Your task to perform on an android device: Open calendar and show me the third week of next month Image 0: 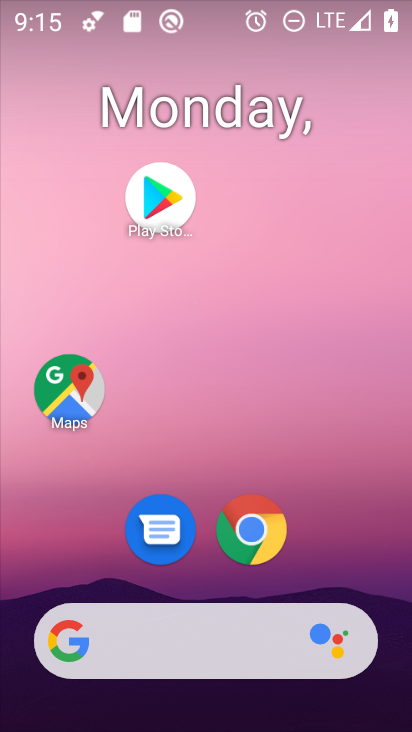
Step 0: drag from (321, 530) to (179, 15)
Your task to perform on an android device: Open calendar and show me the third week of next month Image 1: 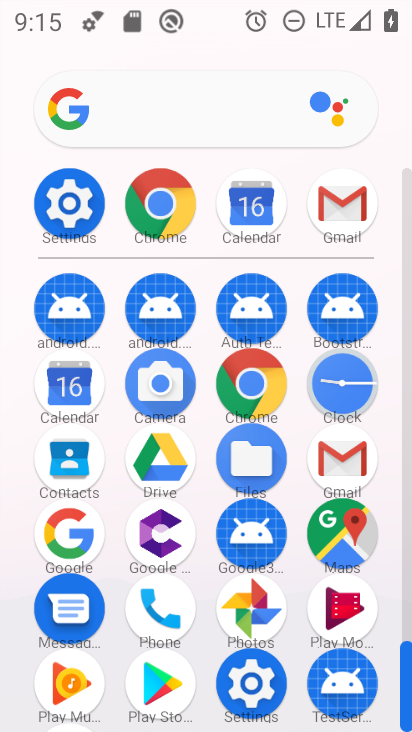
Step 1: click (74, 381)
Your task to perform on an android device: Open calendar and show me the third week of next month Image 2: 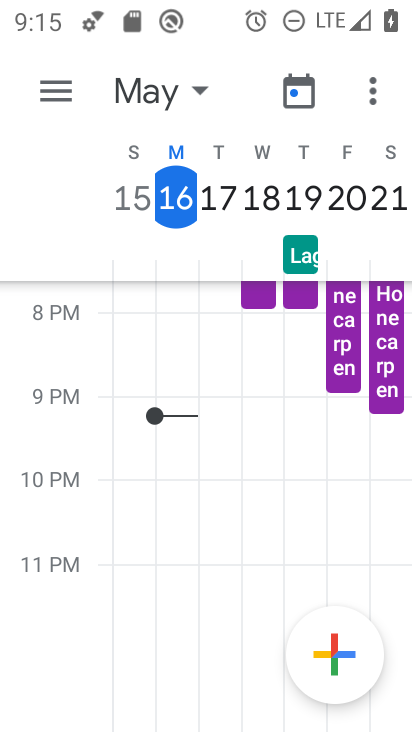
Step 2: click (197, 91)
Your task to perform on an android device: Open calendar and show me the third week of next month Image 3: 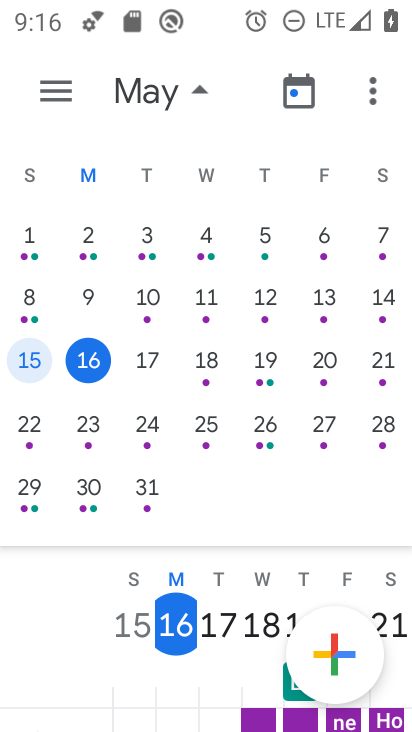
Step 3: drag from (364, 295) to (4, 294)
Your task to perform on an android device: Open calendar and show me the third week of next month Image 4: 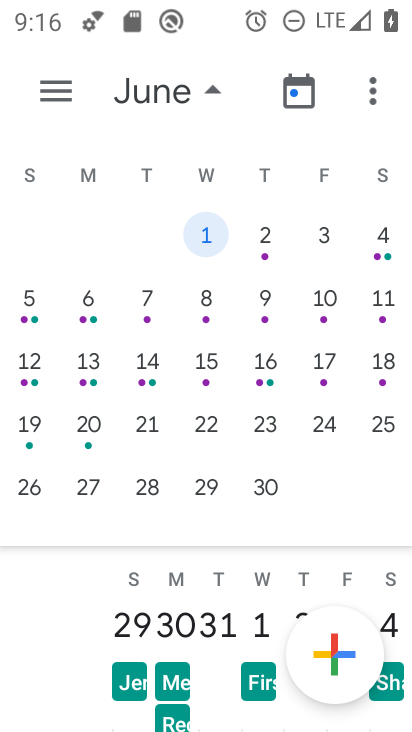
Step 4: click (147, 358)
Your task to perform on an android device: Open calendar and show me the third week of next month Image 5: 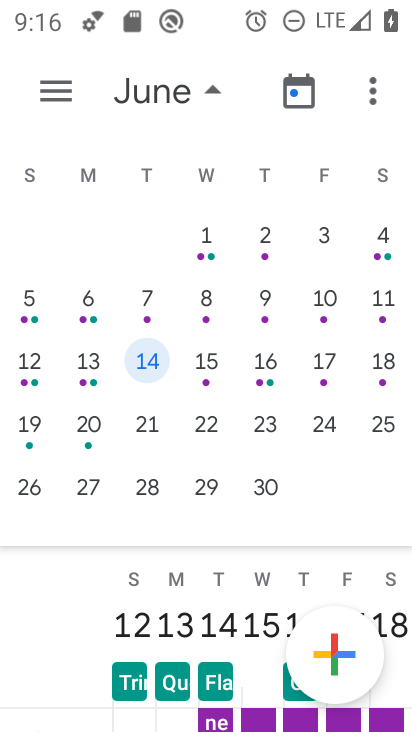
Step 5: task complete